Your task to perform on an android device: toggle pop-ups in chrome Image 0: 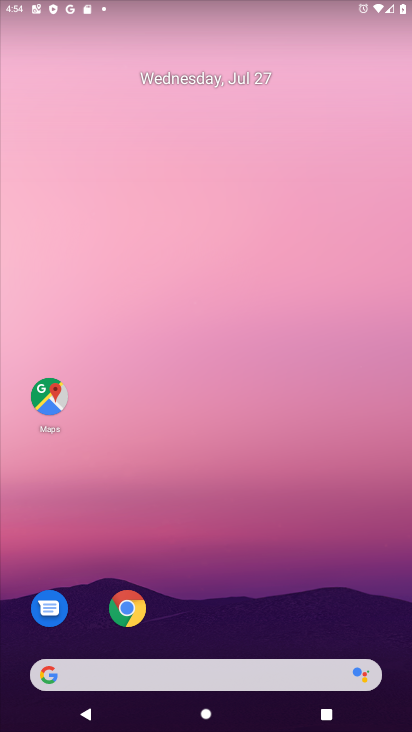
Step 0: click (135, 599)
Your task to perform on an android device: toggle pop-ups in chrome Image 1: 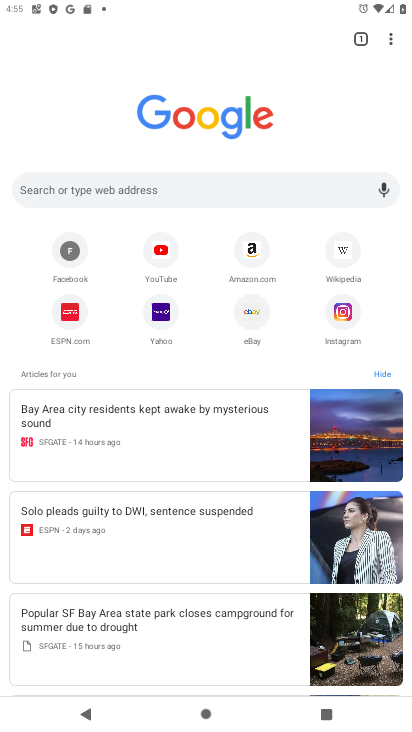
Step 1: click (395, 28)
Your task to perform on an android device: toggle pop-ups in chrome Image 2: 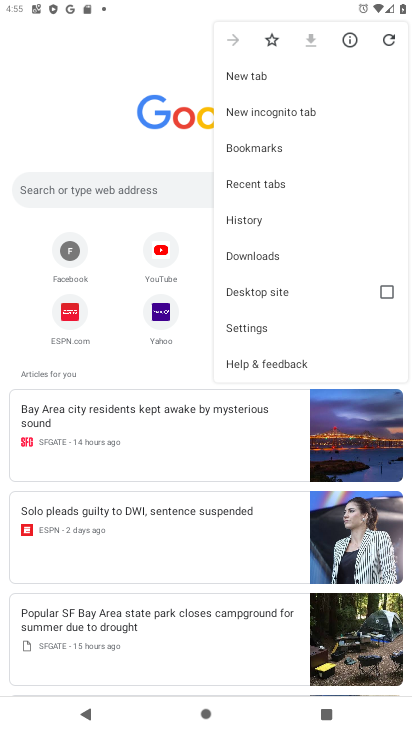
Step 2: click (252, 334)
Your task to perform on an android device: toggle pop-ups in chrome Image 3: 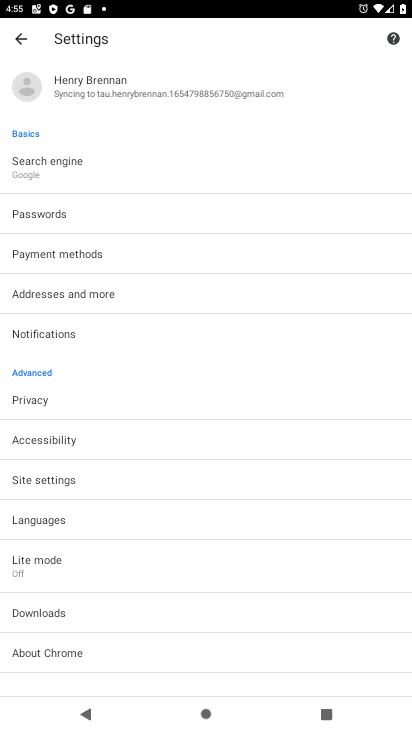
Step 3: click (62, 489)
Your task to perform on an android device: toggle pop-ups in chrome Image 4: 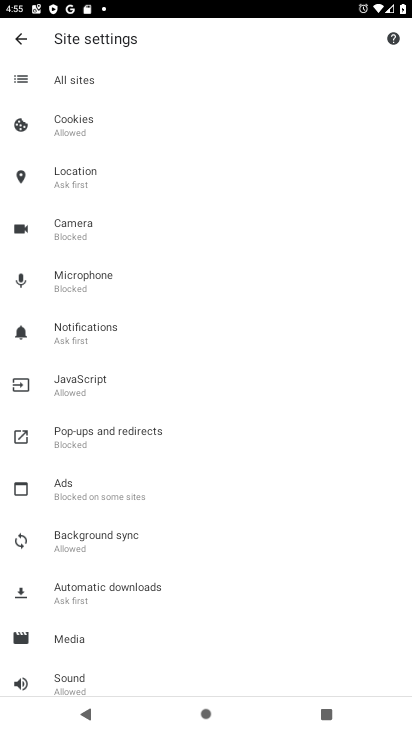
Step 4: click (120, 441)
Your task to perform on an android device: toggle pop-ups in chrome Image 5: 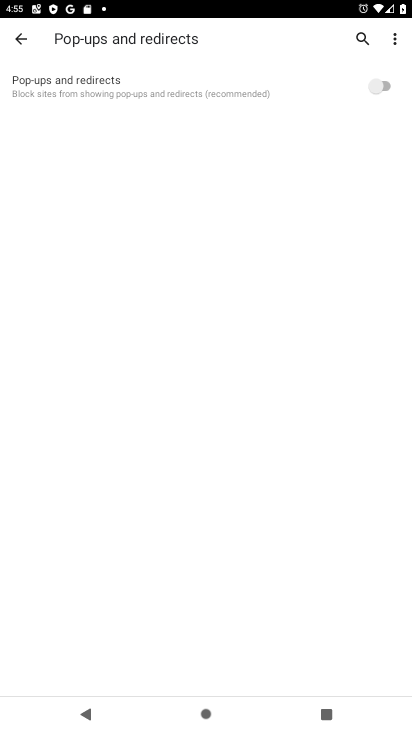
Step 5: click (391, 86)
Your task to perform on an android device: toggle pop-ups in chrome Image 6: 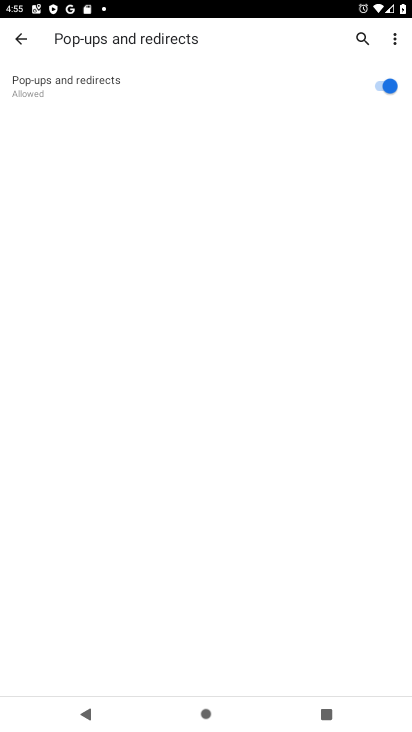
Step 6: task complete